Your task to perform on an android device: turn on the 24-hour format for clock Image 0: 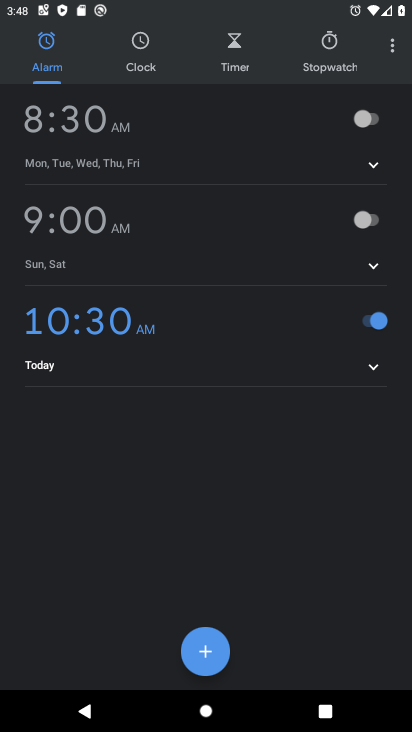
Step 0: press home button
Your task to perform on an android device: turn on the 24-hour format for clock Image 1: 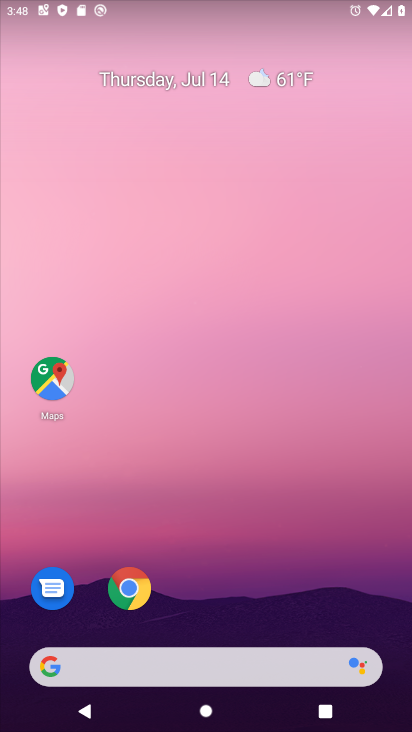
Step 1: drag from (255, 570) to (313, 65)
Your task to perform on an android device: turn on the 24-hour format for clock Image 2: 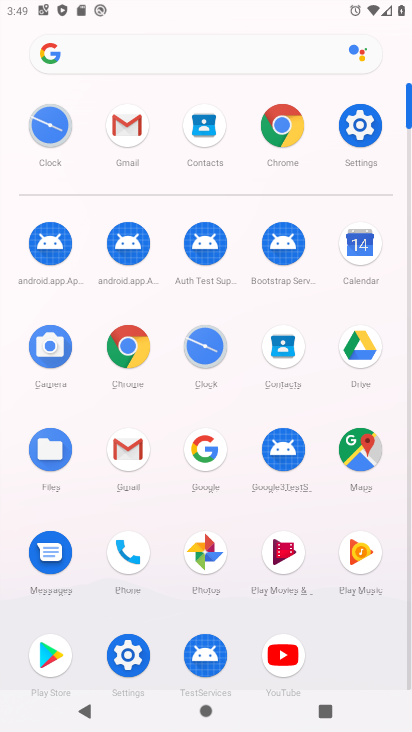
Step 2: click (205, 348)
Your task to perform on an android device: turn on the 24-hour format for clock Image 3: 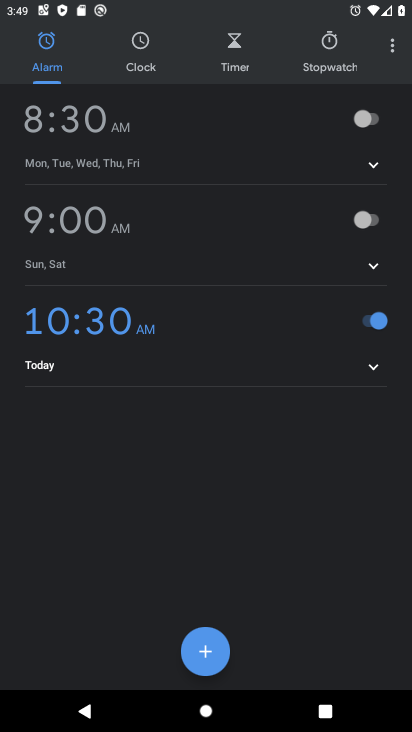
Step 3: click (387, 43)
Your task to perform on an android device: turn on the 24-hour format for clock Image 4: 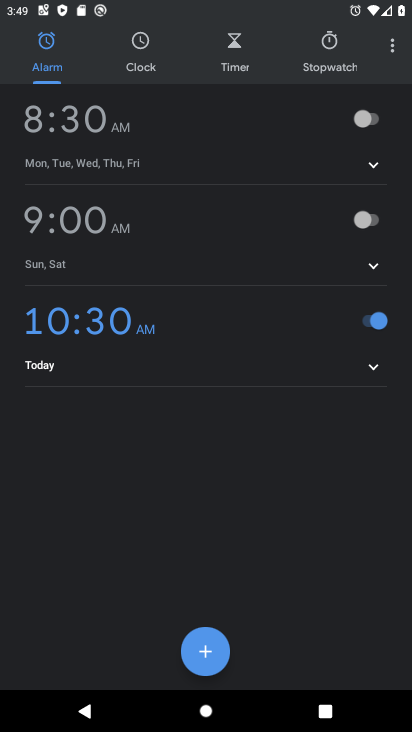
Step 4: click (393, 37)
Your task to perform on an android device: turn on the 24-hour format for clock Image 5: 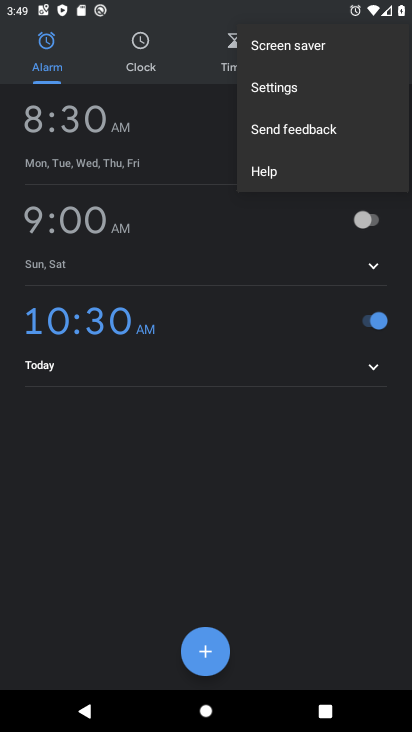
Step 5: click (280, 81)
Your task to perform on an android device: turn on the 24-hour format for clock Image 6: 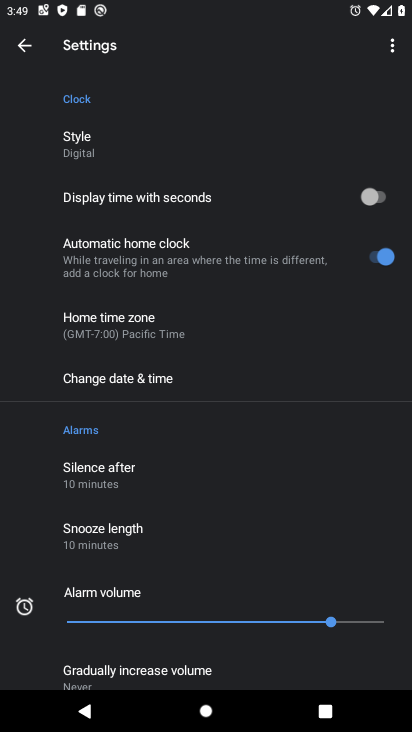
Step 6: click (108, 383)
Your task to perform on an android device: turn on the 24-hour format for clock Image 7: 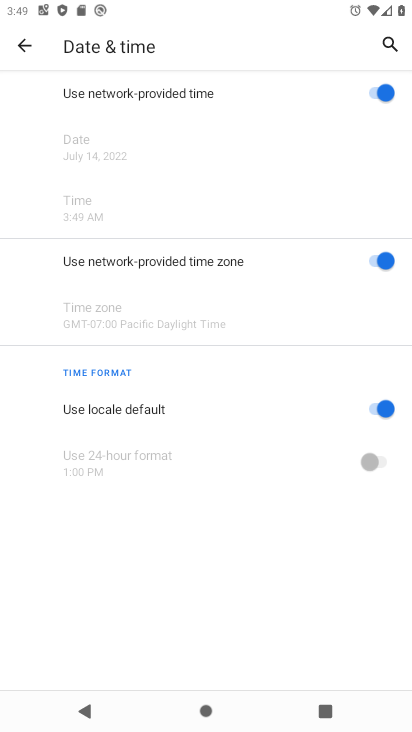
Step 7: click (390, 414)
Your task to perform on an android device: turn on the 24-hour format for clock Image 8: 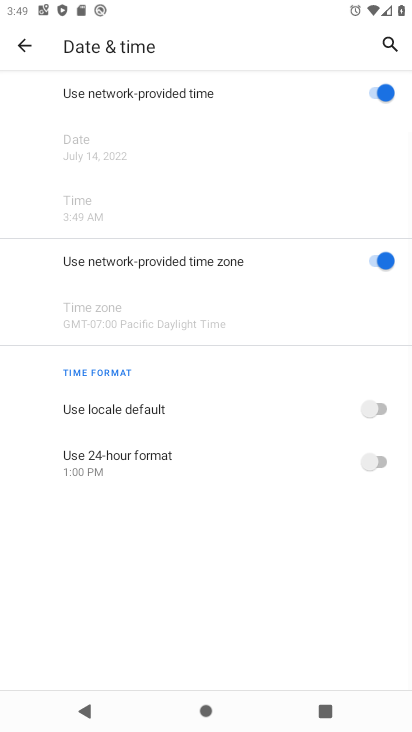
Step 8: click (381, 456)
Your task to perform on an android device: turn on the 24-hour format for clock Image 9: 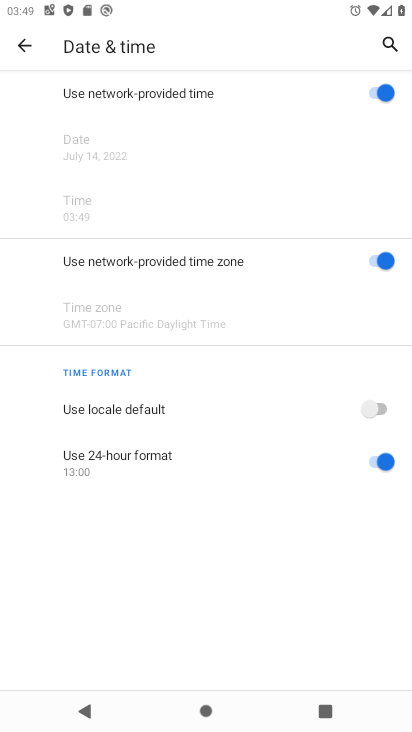
Step 9: task complete